Your task to perform on an android device: toggle show notifications on the lock screen Image 0: 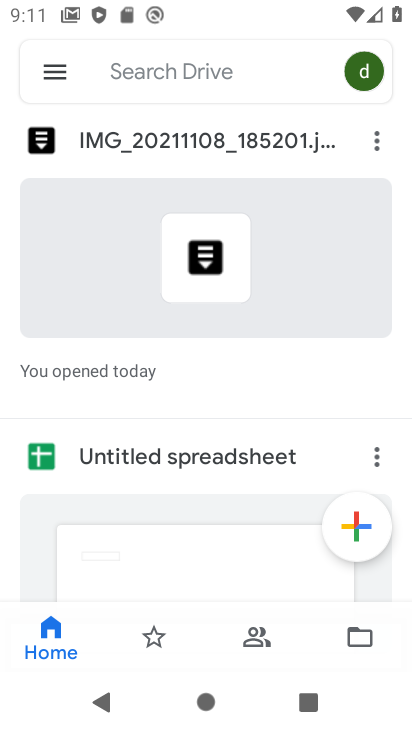
Step 0: press home button
Your task to perform on an android device: toggle show notifications on the lock screen Image 1: 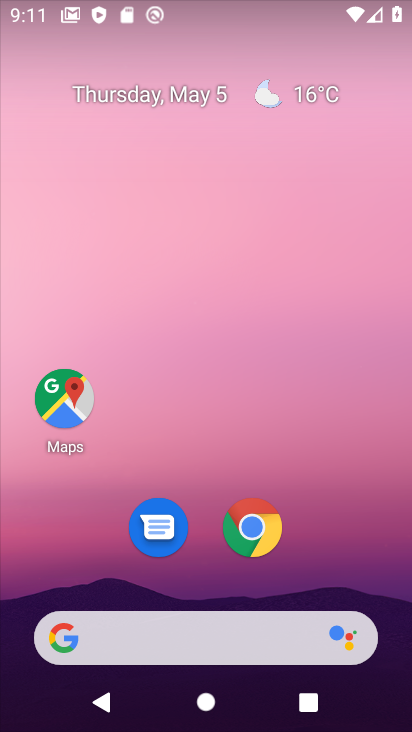
Step 1: drag from (206, 588) to (211, 66)
Your task to perform on an android device: toggle show notifications on the lock screen Image 2: 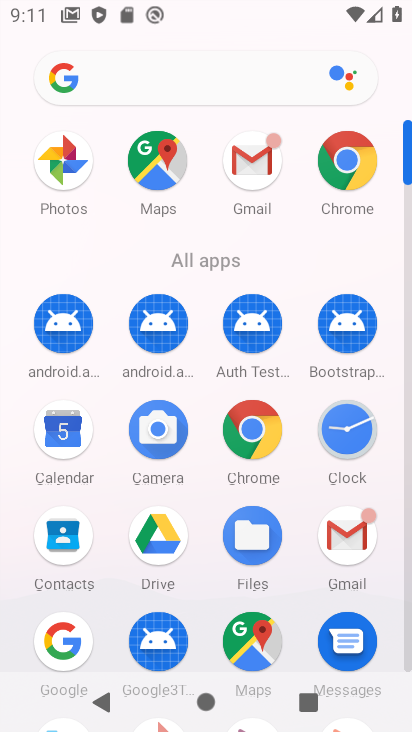
Step 2: drag from (202, 610) to (216, 102)
Your task to perform on an android device: toggle show notifications on the lock screen Image 3: 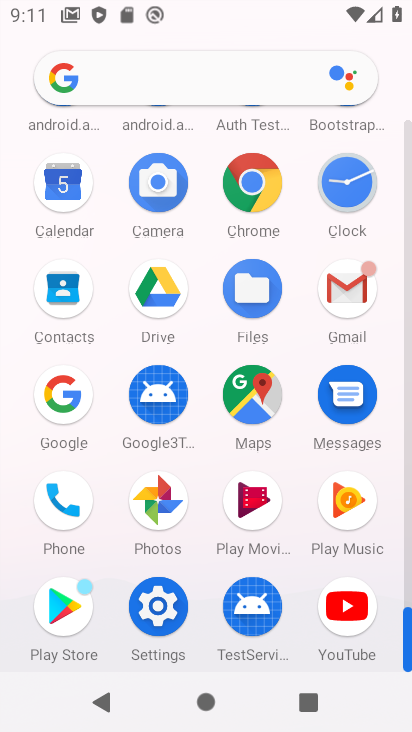
Step 3: click (156, 599)
Your task to perform on an android device: toggle show notifications on the lock screen Image 4: 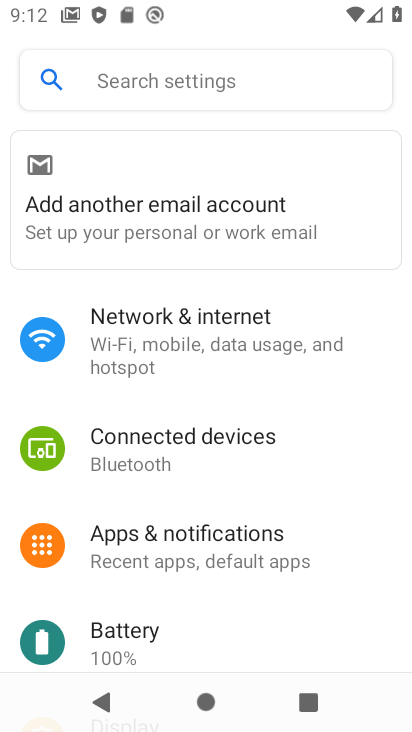
Step 4: click (292, 532)
Your task to perform on an android device: toggle show notifications on the lock screen Image 5: 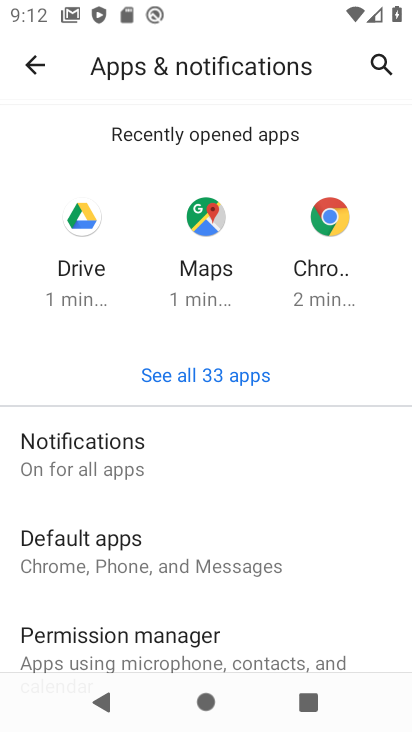
Step 5: click (151, 457)
Your task to perform on an android device: toggle show notifications on the lock screen Image 6: 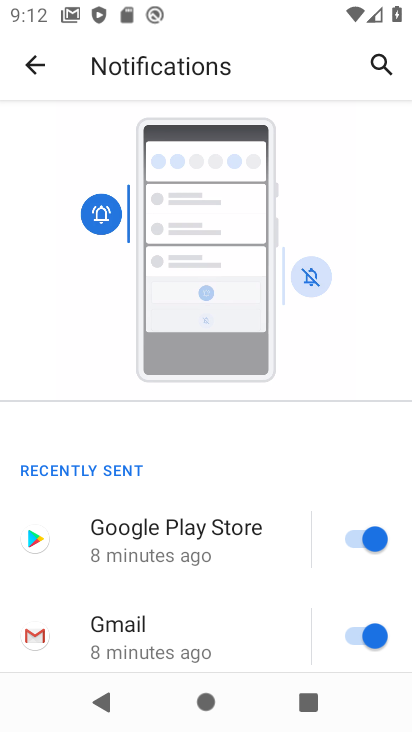
Step 6: drag from (236, 635) to (265, 182)
Your task to perform on an android device: toggle show notifications on the lock screen Image 7: 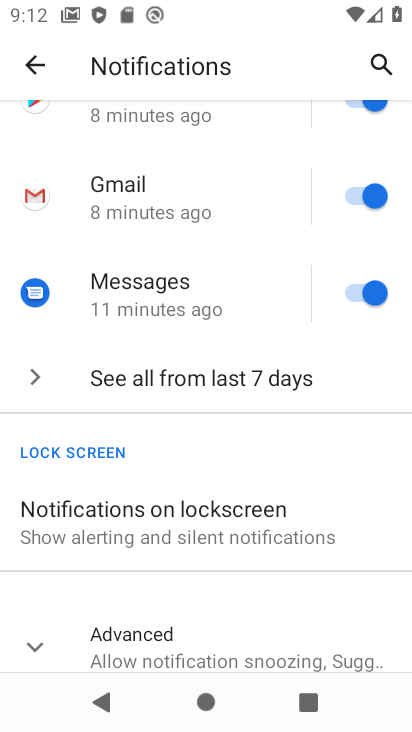
Step 7: click (218, 521)
Your task to perform on an android device: toggle show notifications on the lock screen Image 8: 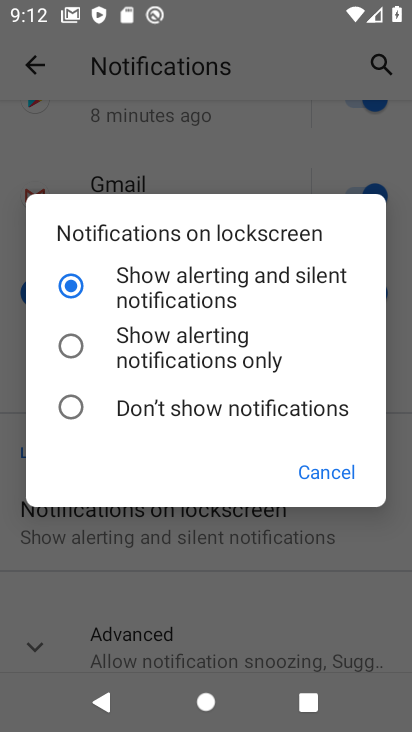
Step 8: task complete